Your task to perform on an android device: see tabs open on other devices in the chrome app Image 0: 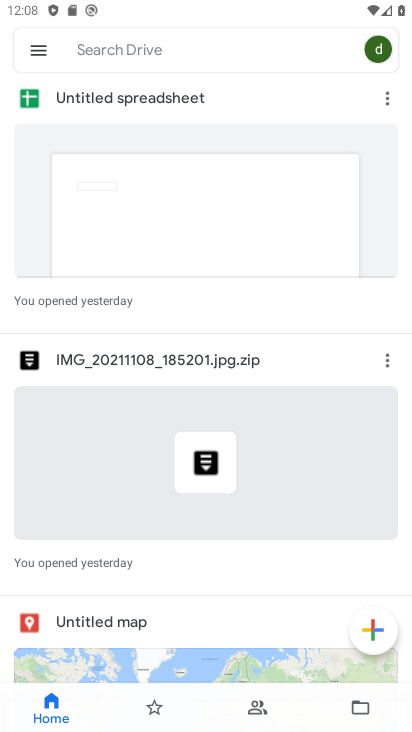
Step 0: press home button
Your task to perform on an android device: see tabs open on other devices in the chrome app Image 1: 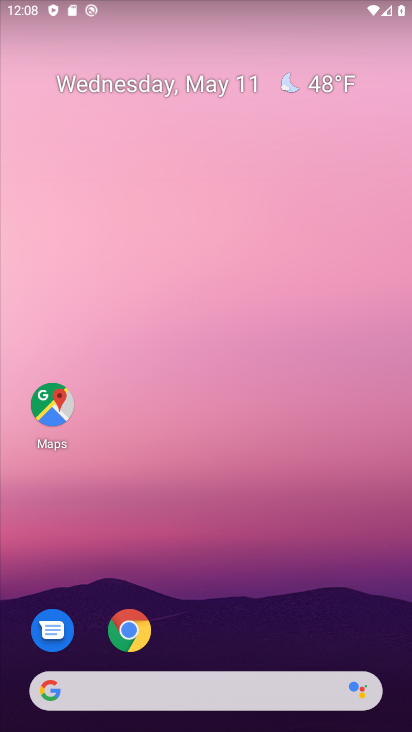
Step 1: click (143, 631)
Your task to perform on an android device: see tabs open on other devices in the chrome app Image 2: 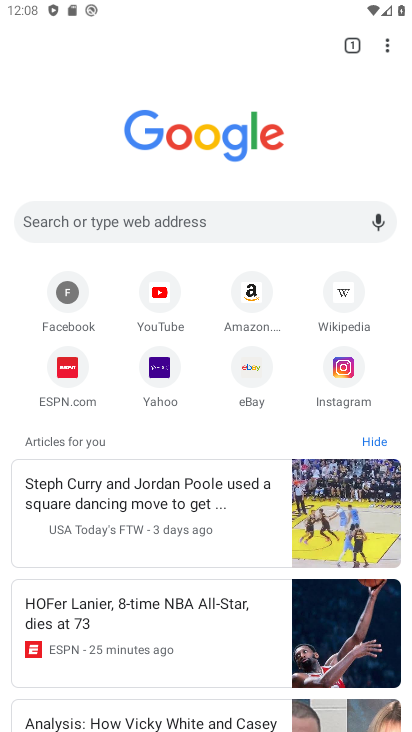
Step 2: click (347, 45)
Your task to perform on an android device: see tabs open on other devices in the chrome app Image 3: 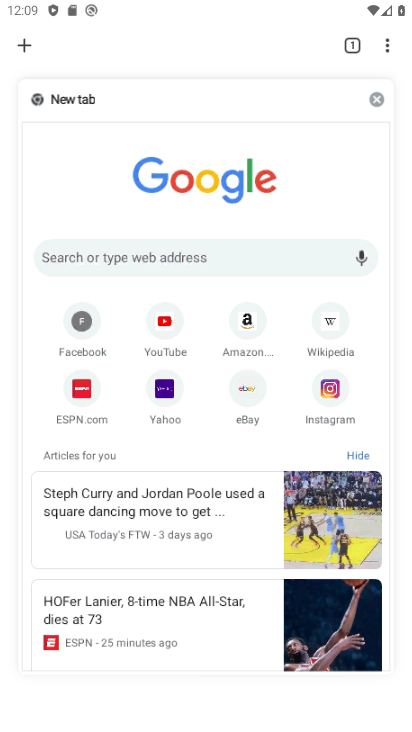
Step 3: task complete